Your task to perform on an android device: Go to Maps Image 0: 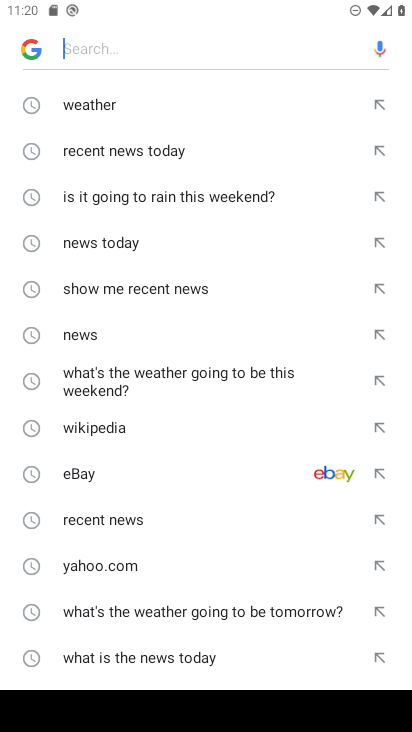
Step 0: press home button
Your task to perform on an android device: Go to Maps Image 1: 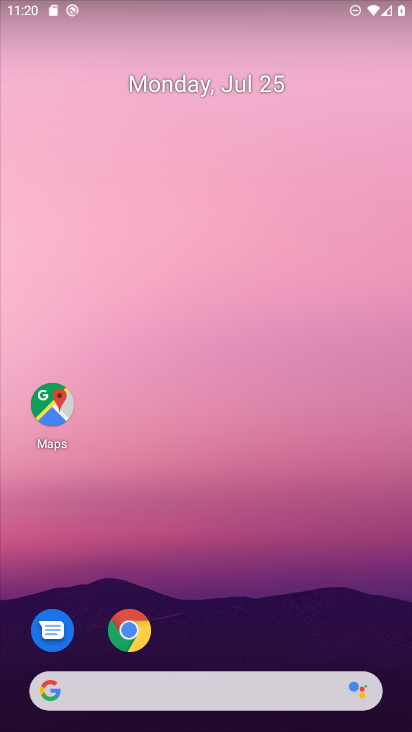
Step 1: click (54, 414)
Your task to perform on an android device: Go to Maps Image 2: 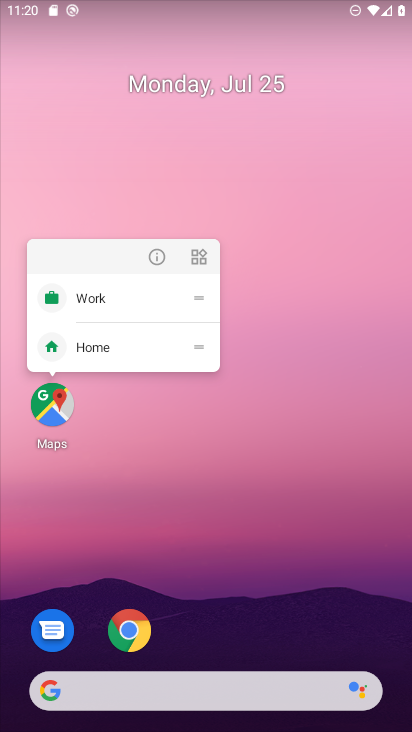
Step 2: click (54, 414)
Your task to perform on an android device: Go to Maps Image 3: 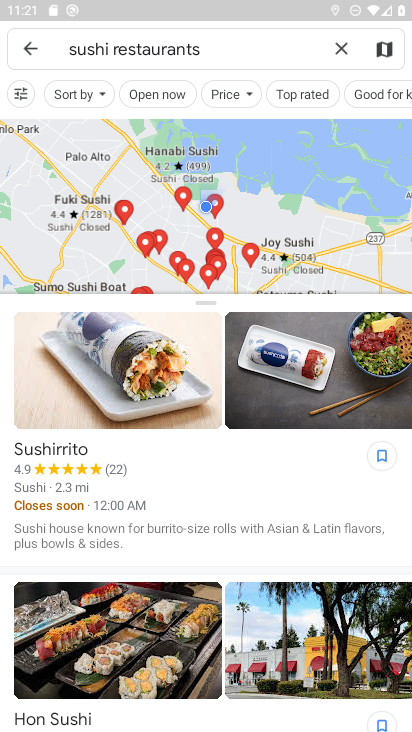
Step 3: task complete